Your task to perform on an android device: open chrome and create a bookmark for the current page Image 0: 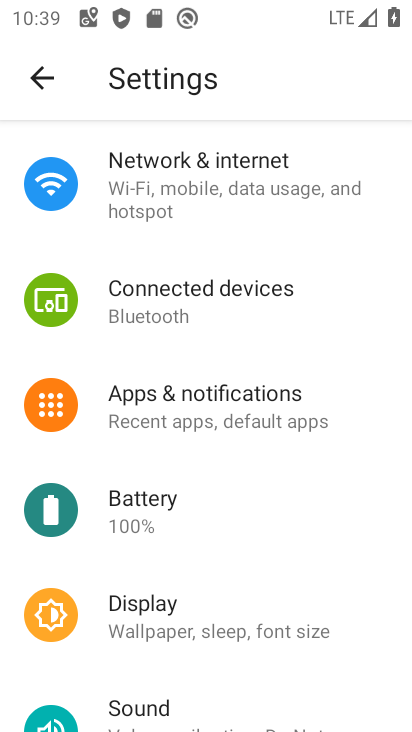
Step 0: press home button
Your task to perform on an android device: open chrome and create a bookmark for the current page Image 1: 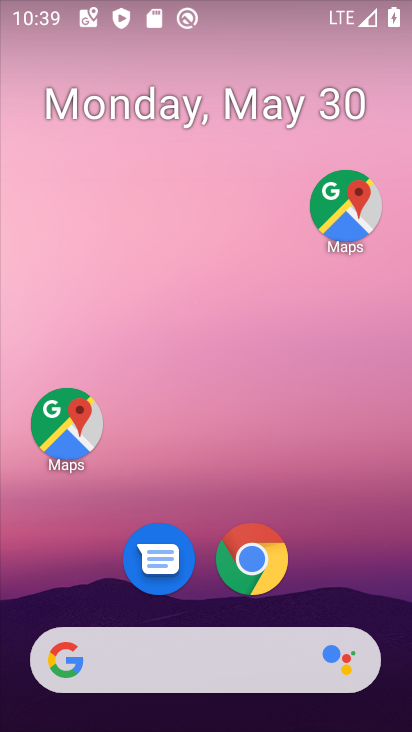
Step 1: click (252, 555)
Your task to perform on an android device: open chrome and create a bookmark for the current page Image 2: 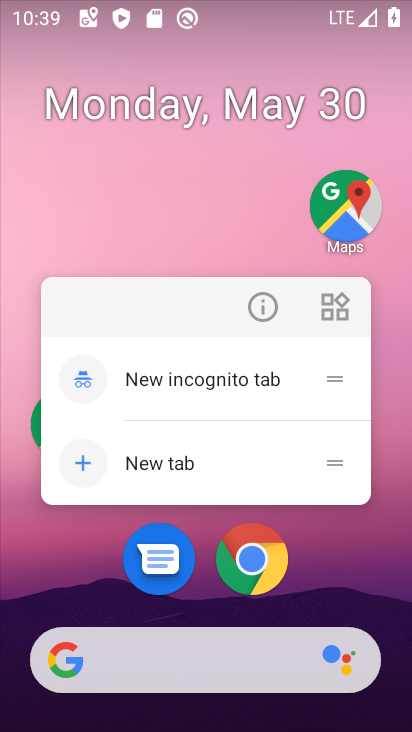
Step 2: click (252, 555)
Your task to perform on an android device: open chrome and create a bookmark for the current page Image 3: 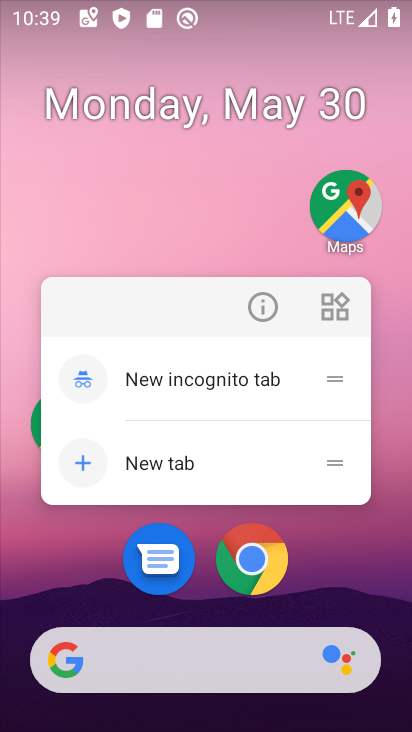
Step 3: click (251, 555)
Your task to perform on an android device: open chrome and create a bookmark for the current page Image 4: 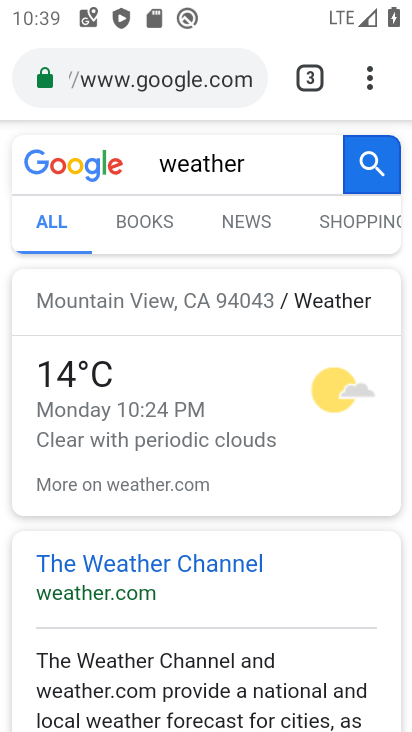
Step 4: task complete